Your task to perform on an android device: toggle wifi Image 0: 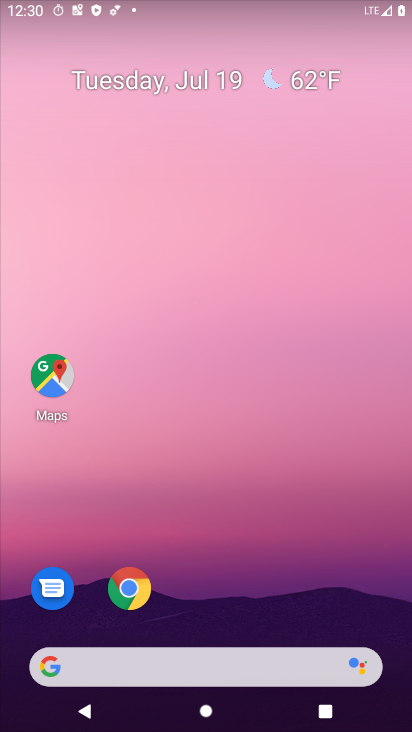
Step 0: drag from (270, 566) to (245, 216)
Your task to perform on an android device: toggle wifi Image 1: 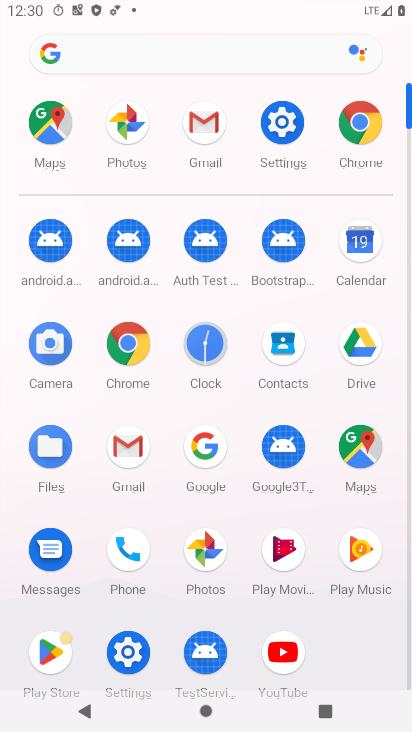
Step 1: click (280, 103)
Your task to perform on an android device: toggle wifi Image 2: 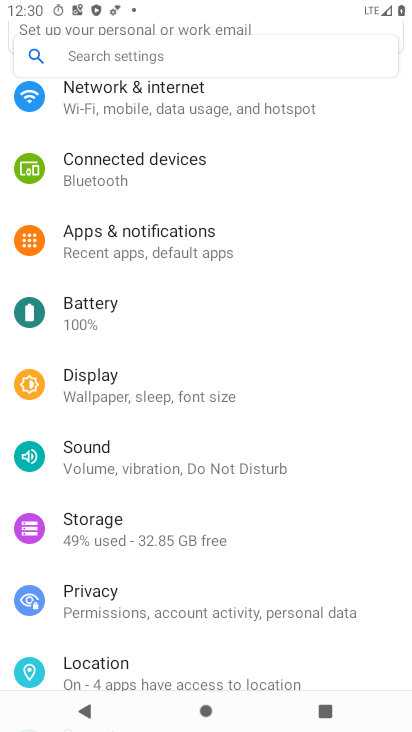
Step 2: click (263, 103)
Your task to perform on an android device: toggle wifi Image 3: 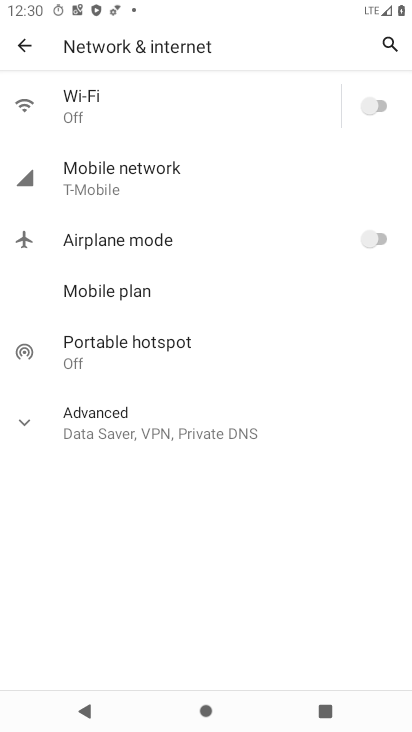
Step 3: click (384, 105)
Your task to perform on an android device: toggle wifi Image 4: 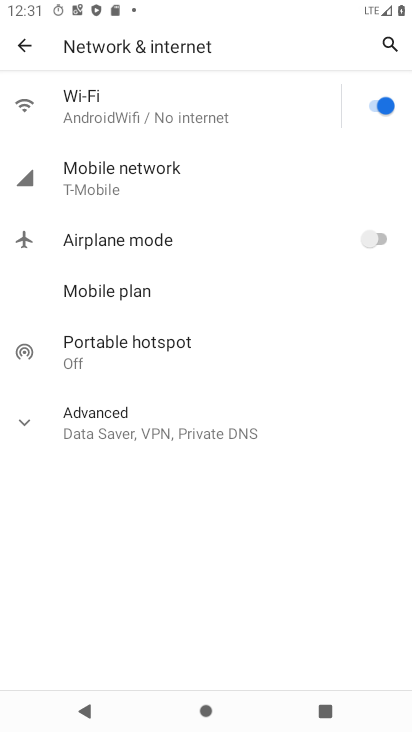
Step 4: task complete